Your task to perform on an android device: Go to Amazon Image 0: 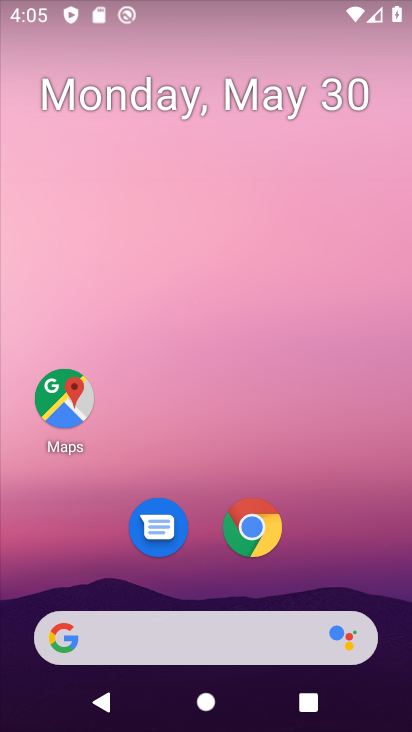
Step 0: click (252, 530)
Your task to perform on an android device: Go to Amazon Image 1: 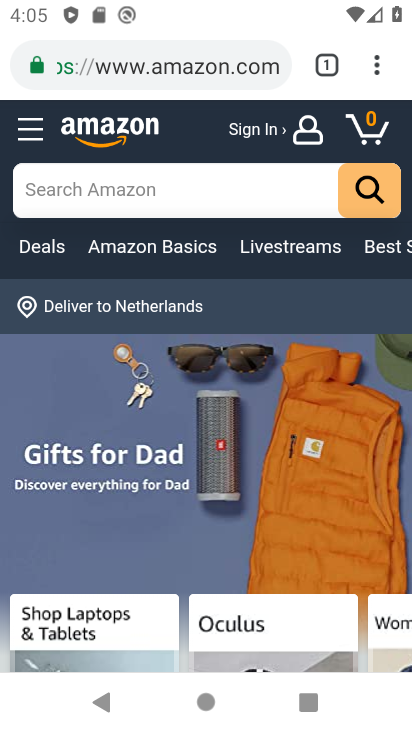
Step 1: task complete